Your task to perform on an android device: Open sound settings Image 0: 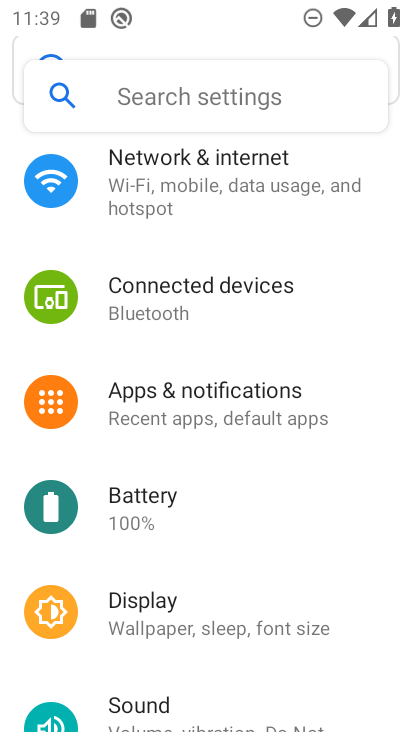
Step 0: press home button
Your task to perform on an android device: Open sound settings Image 1: 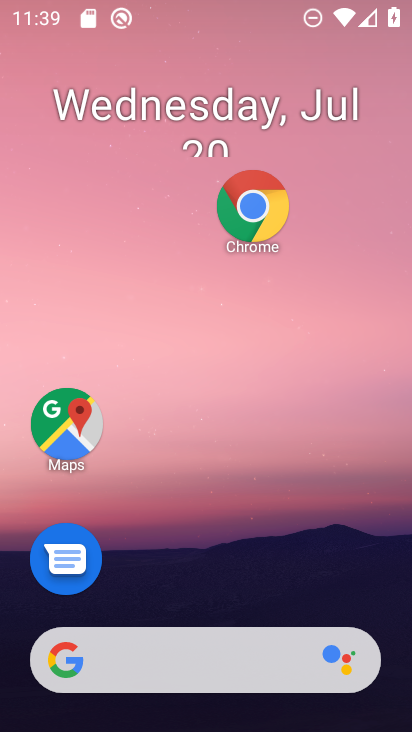
Step 1: drag from (219, 577) to (253, 50)
Your task to perform on an android device: Open sound settings Image 2: 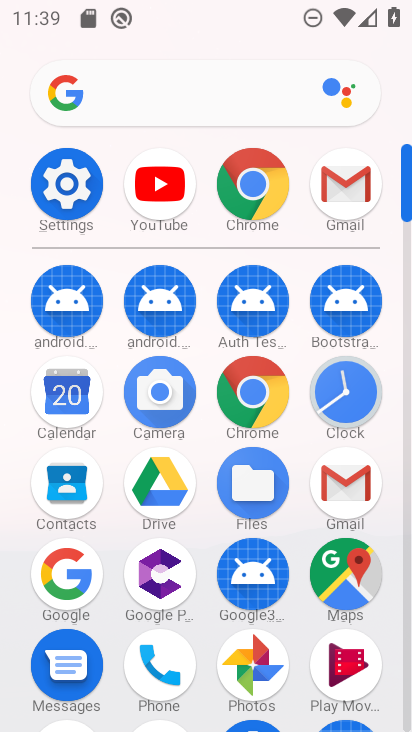
Step 2: click (78, 200)
Your task to perform on an android device: Open sound settings Image 3: 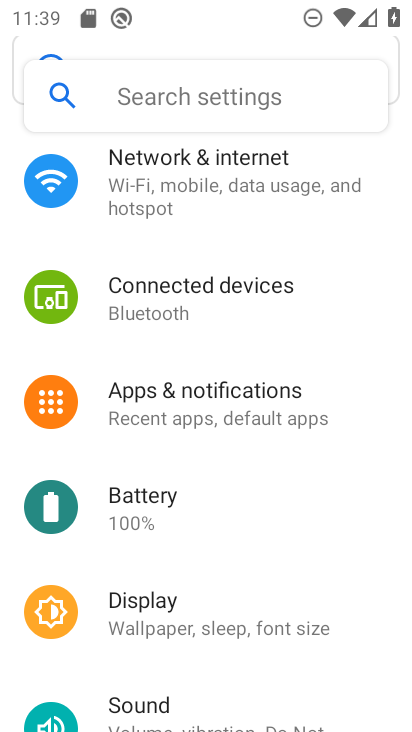
Step 3: drag from (199, 457) to (198, 692)
Your task to perform on an android device: Open sound settings Image 4: 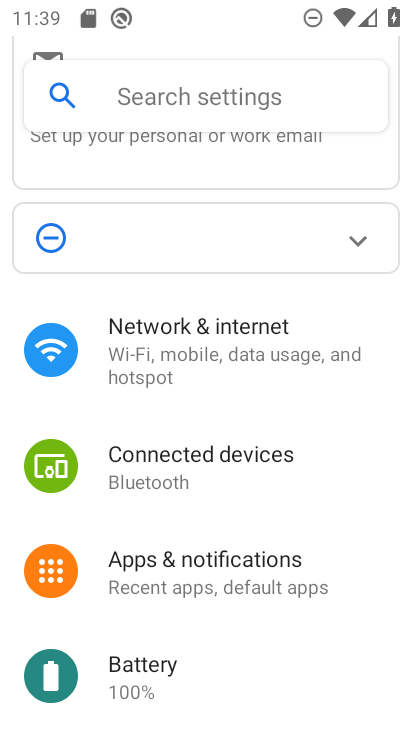
Step 4: drag from (222, 556) to (262, 175)
Your task to perform on an android device: Open sound settings Image 5: 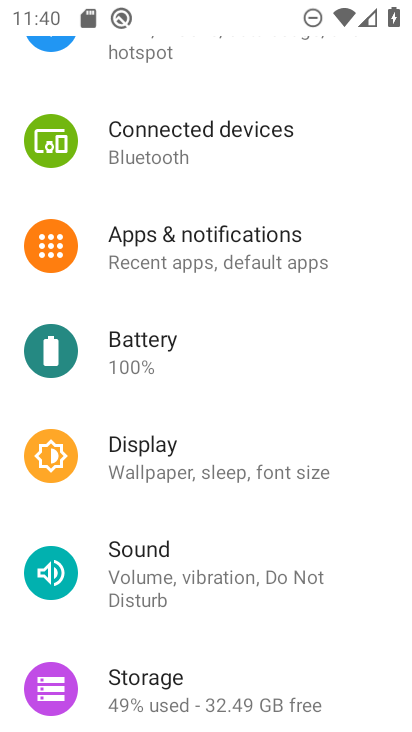
Step 5: click (167, 545)
Your task to perform on an android device: Open sound settings Image 6: 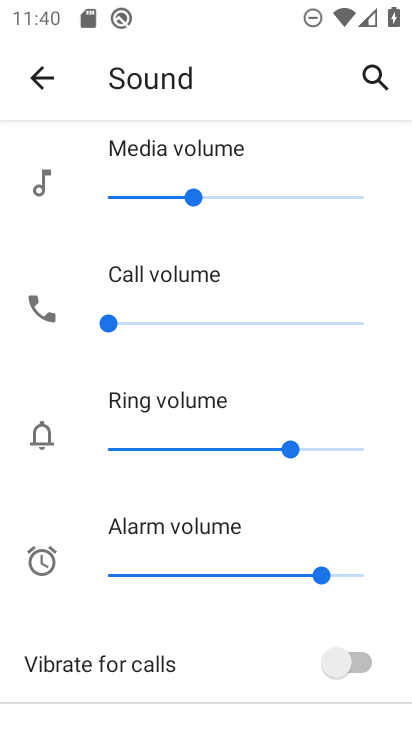
Step 6: task complete